Your task to perform on an android device: Open Maps and search for coffee Image 0: 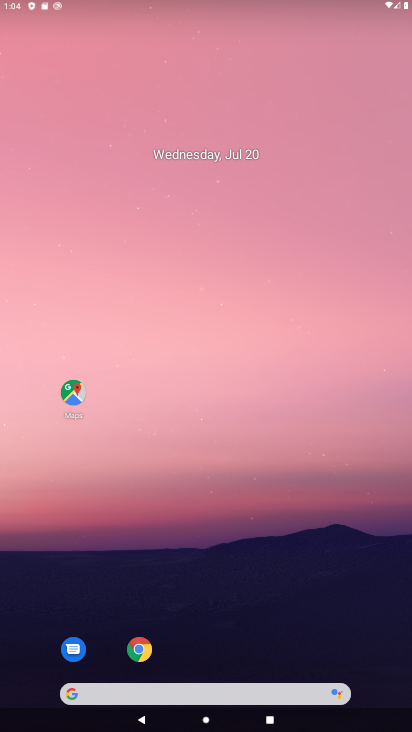
Step 0: press home button
Your task to perform on an android device: Open Maps and search for coffee Image 1: 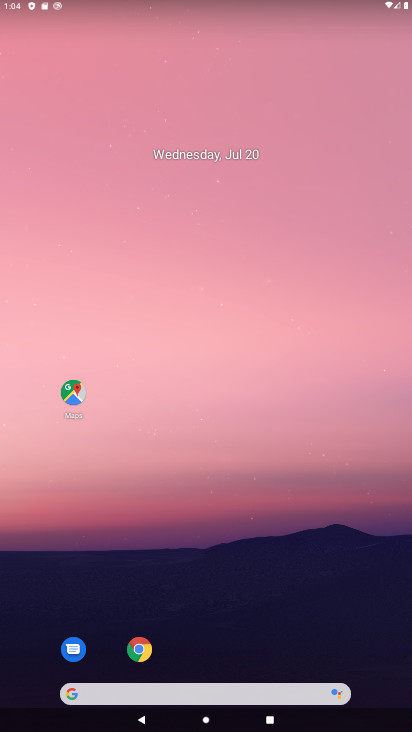
Step 1: press home button
Your task to perform on an android device: Open Maps and search for coffee Image 2: 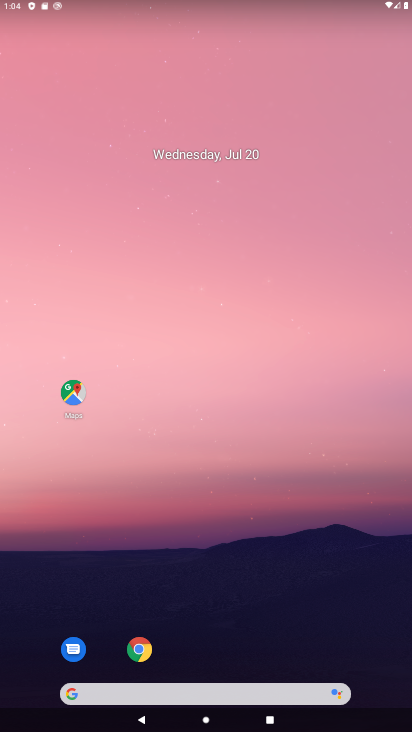
Step 2: drag from (192, 634) to (216, 195)
Your task to perform on an android device: Open Maps and search for coffee Image 3: 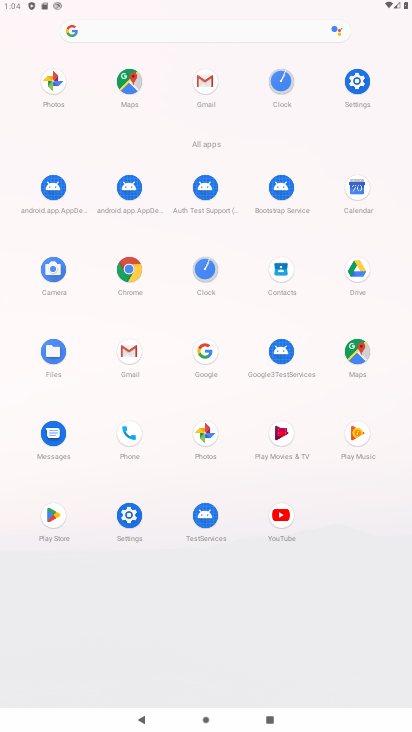
Step 3: click (350, 347)
Your task to perform on an android device: Open Maps and search for coffee Image 4: 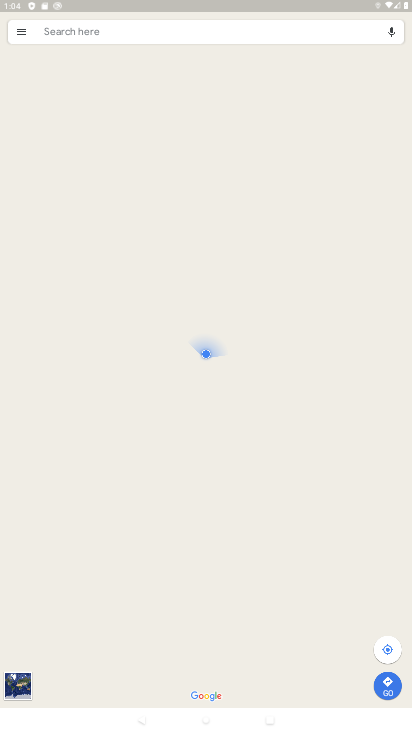
Step 4: click (132, 32)
Your task to perform on an android device: Open Maps and search for coffee Image 5: 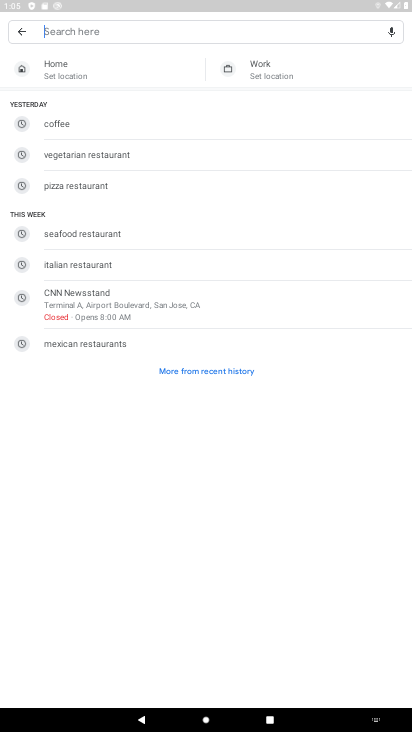
Step 5: type "coffee"
Your task to perform on an android device: Open Maps and search for coffee Image 6: 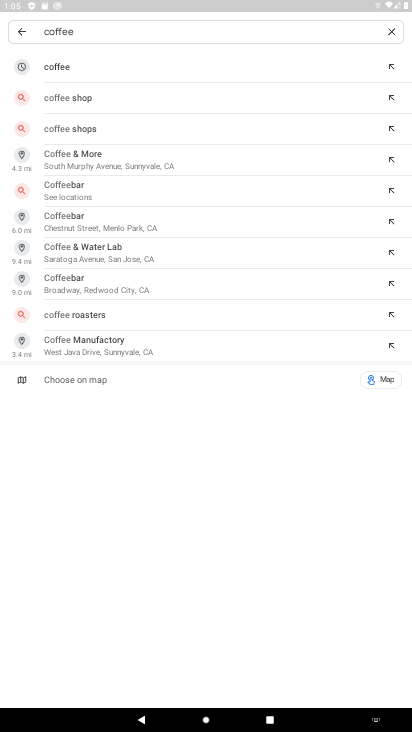
Step 6: click (42, 76)
Your task to perform on an android device: Open Maps and search for coffee Image 7: 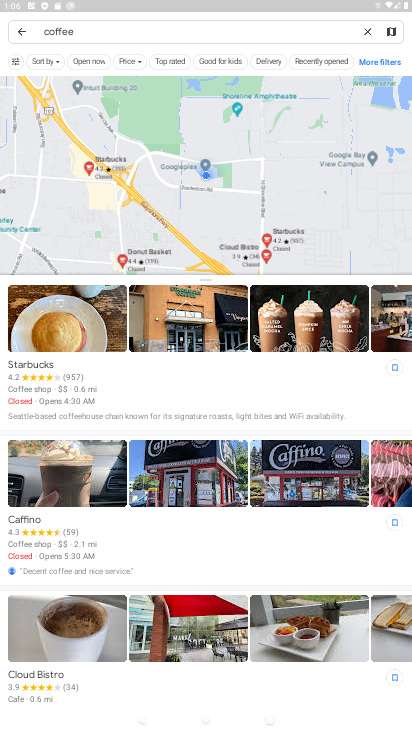
Step 7: task complete